Your task to perform on an android device: Open Google Maps and go to "Timeline" Image 0: 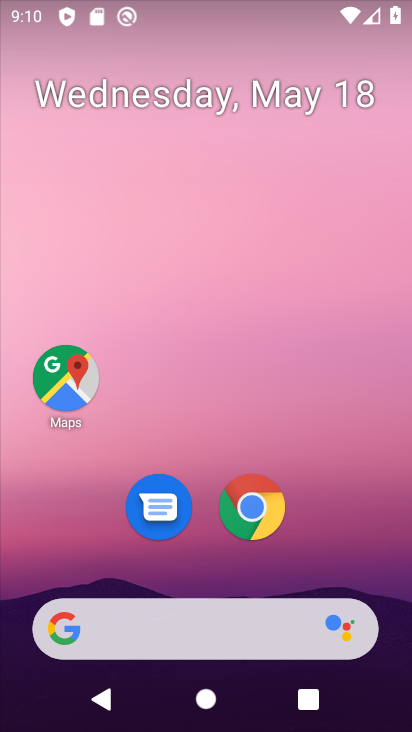
Step 0: click (74, 361)
Your task to perform on an android device: Open Google Maps and go to "Timeline" Image 1: 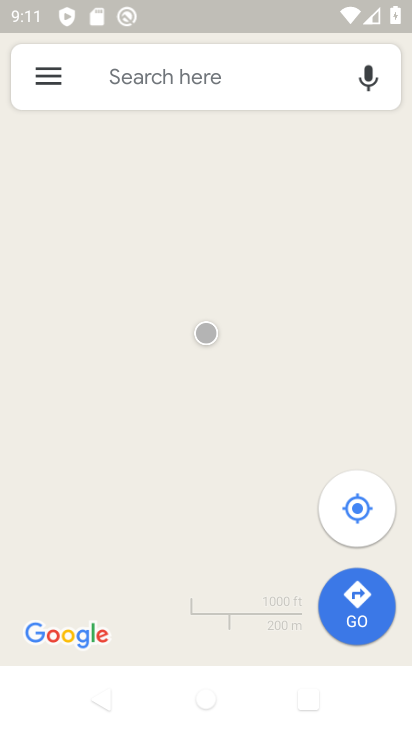
Step 1: click (44, 84)
Your task to perform on an android device: Open Google Maps and go to "Timeline" Image 2: 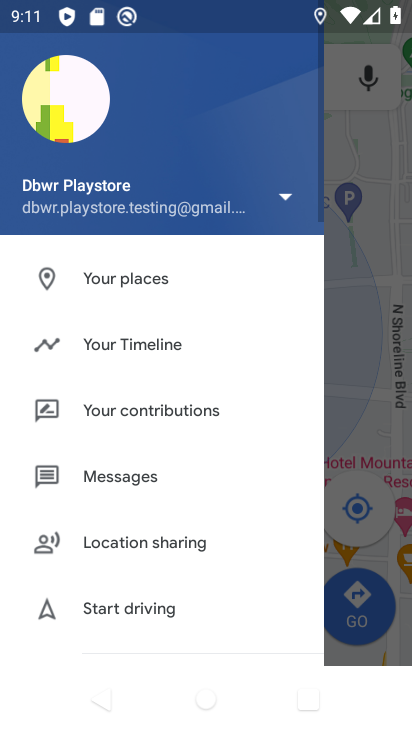
Step 2: click (150, 335)
Your task to perform on an android device: Open Google Maps and go to "Timeline" Image 3: 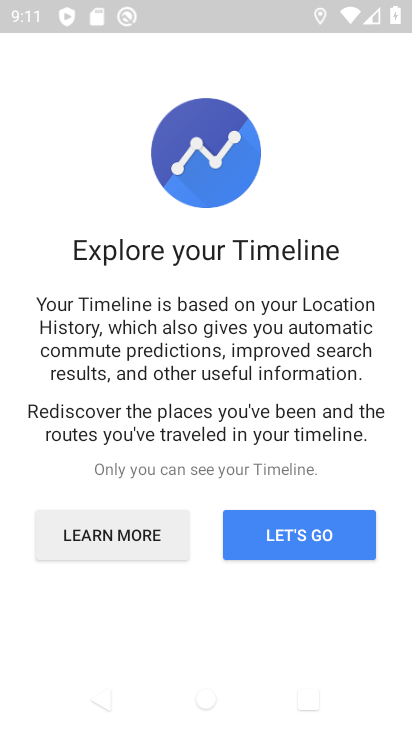
Step 3: click (308, 527)
Your task to perform on an android device: Open Google Maps and go to "Timeline" Image 4: 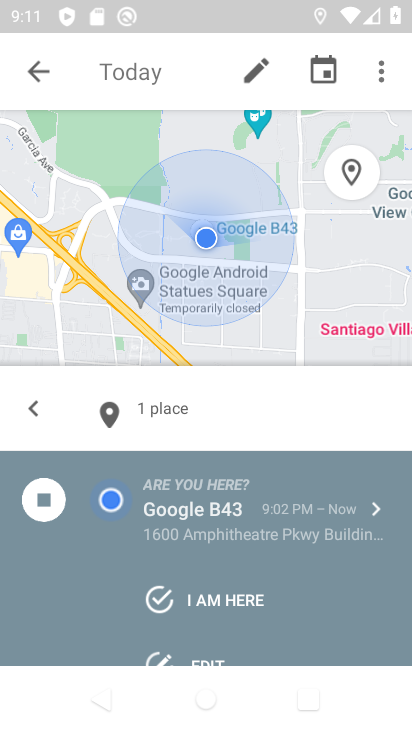
Step 4: task complete